Your task to perform on an android device: turn off location history Image 0: 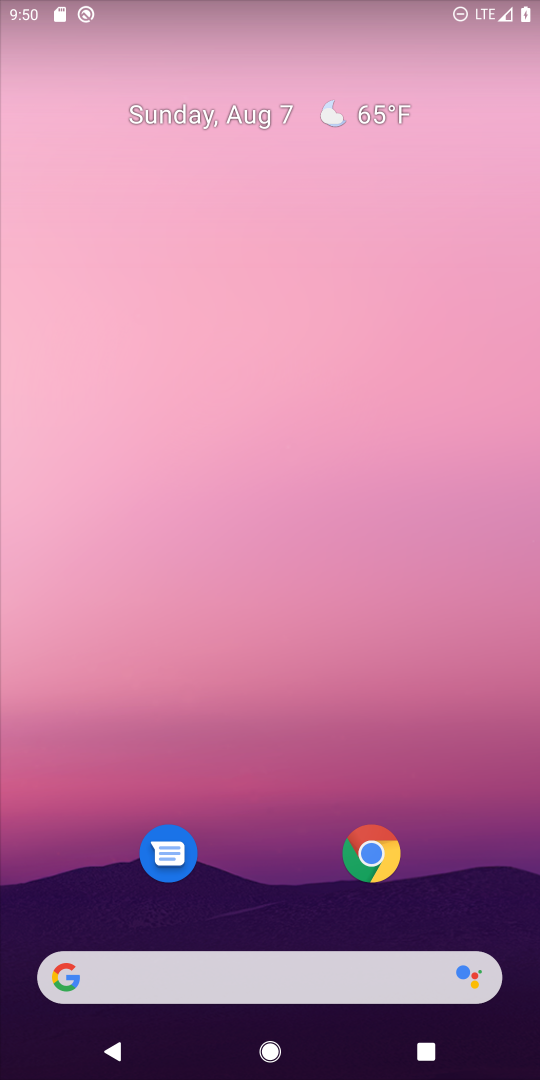
Step 0: drag from (324, 878) to (277, 415)
Your task to perform on an android device: turn off location history Image 1: 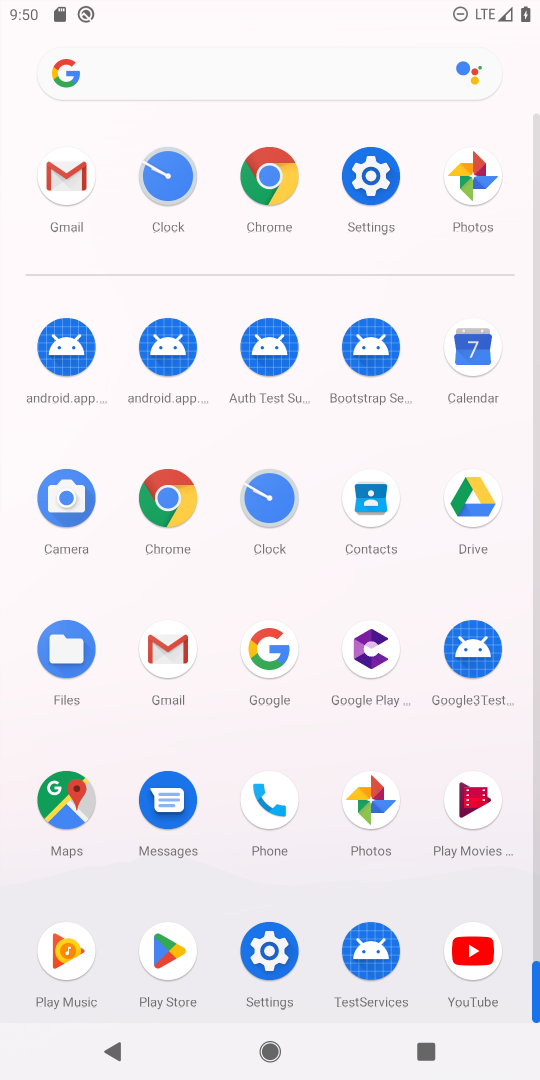
Step 1: click (273, 973)
Your task to perform on an android device: turn off location history Image 2: 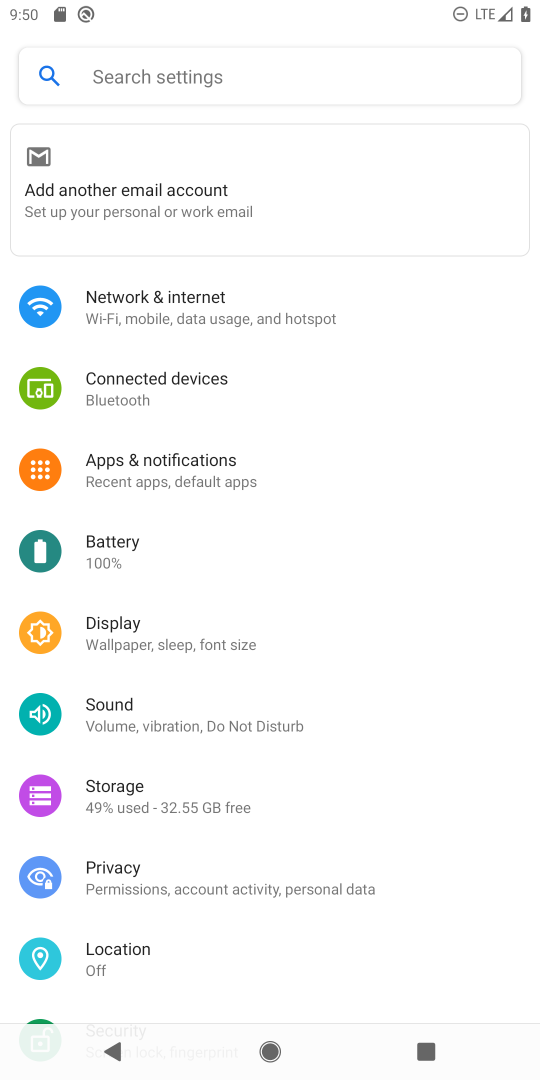
Step 2: click (140, 977)
Your task to perform on an android device: turn off location history Image 3: 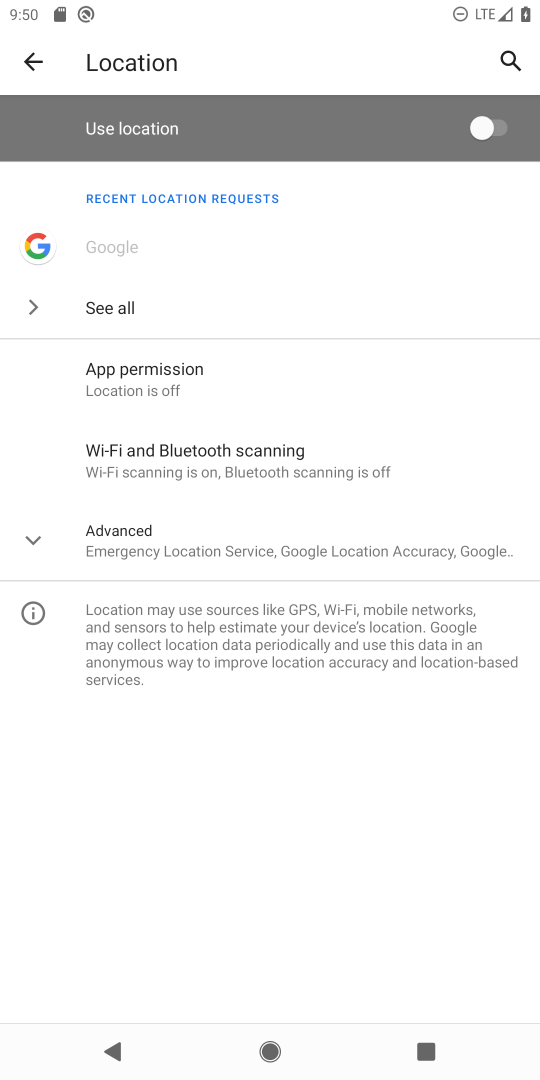
Step 3: click (186, 533)
Your task to perform on an android device: turn off location history Image 4: 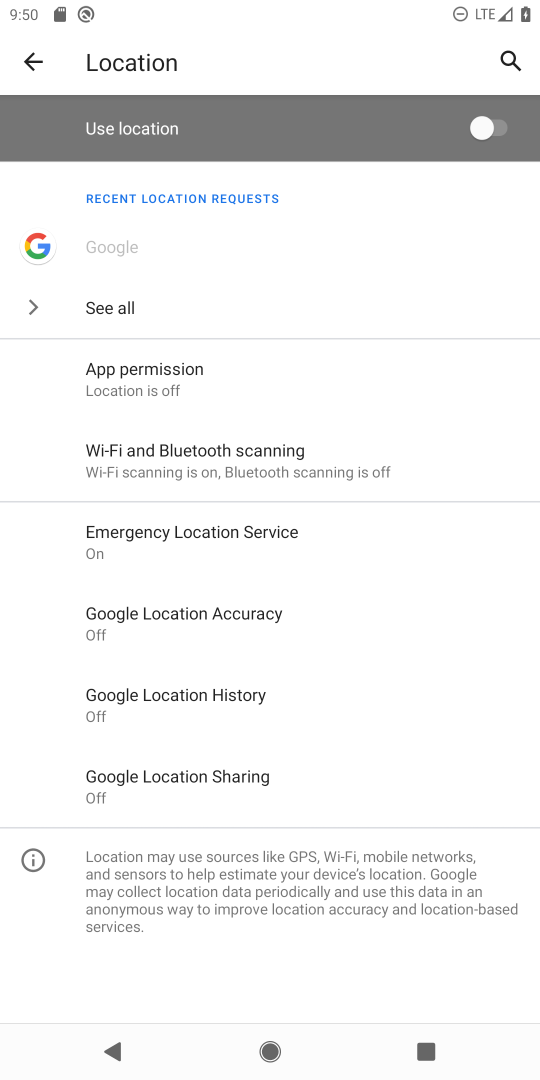
Step 4: click (156, 698)
Your task to perform on an android device: turn off location history Image 5: 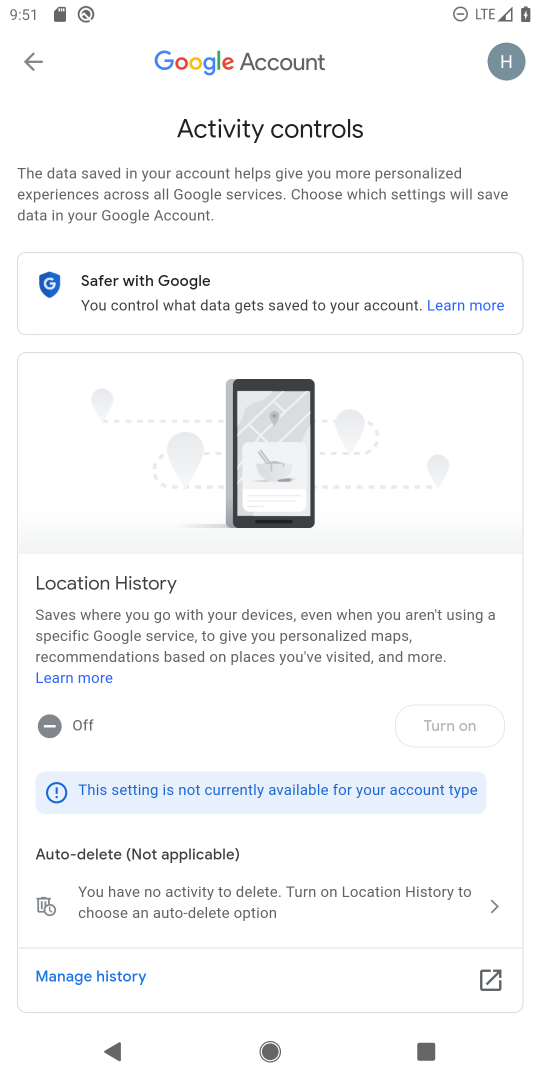
Step 5: task complete